Your task to perform on an android device: Empty the shopping cart on ebay.com. Add logitech g502 to the cart on ebay.com, then select checkout. Image 0: 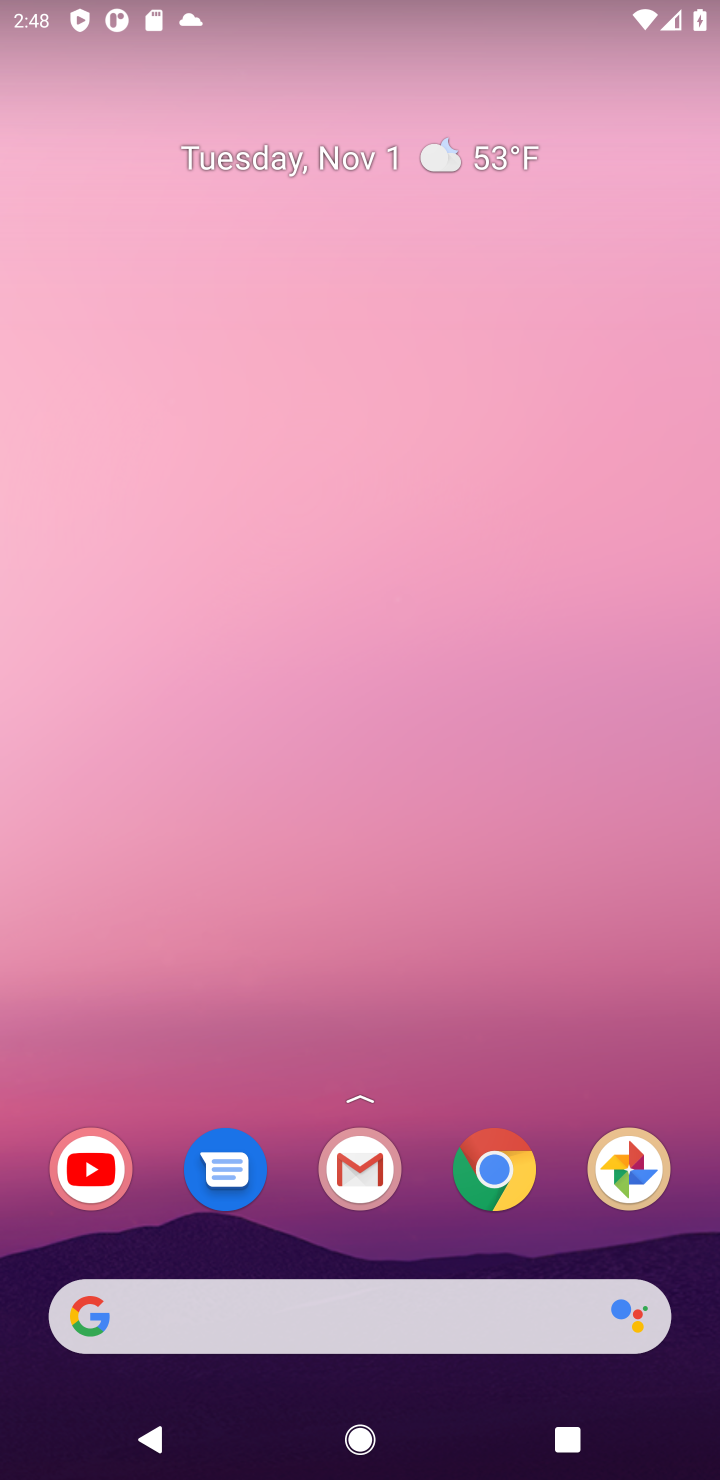
Step 0: click (506, 1173)
Your task to perform on an android device: Empty the shopping cart on ebay.com. Add logitech g502 to the cart on ebay.com, then select checkout. Image 1: 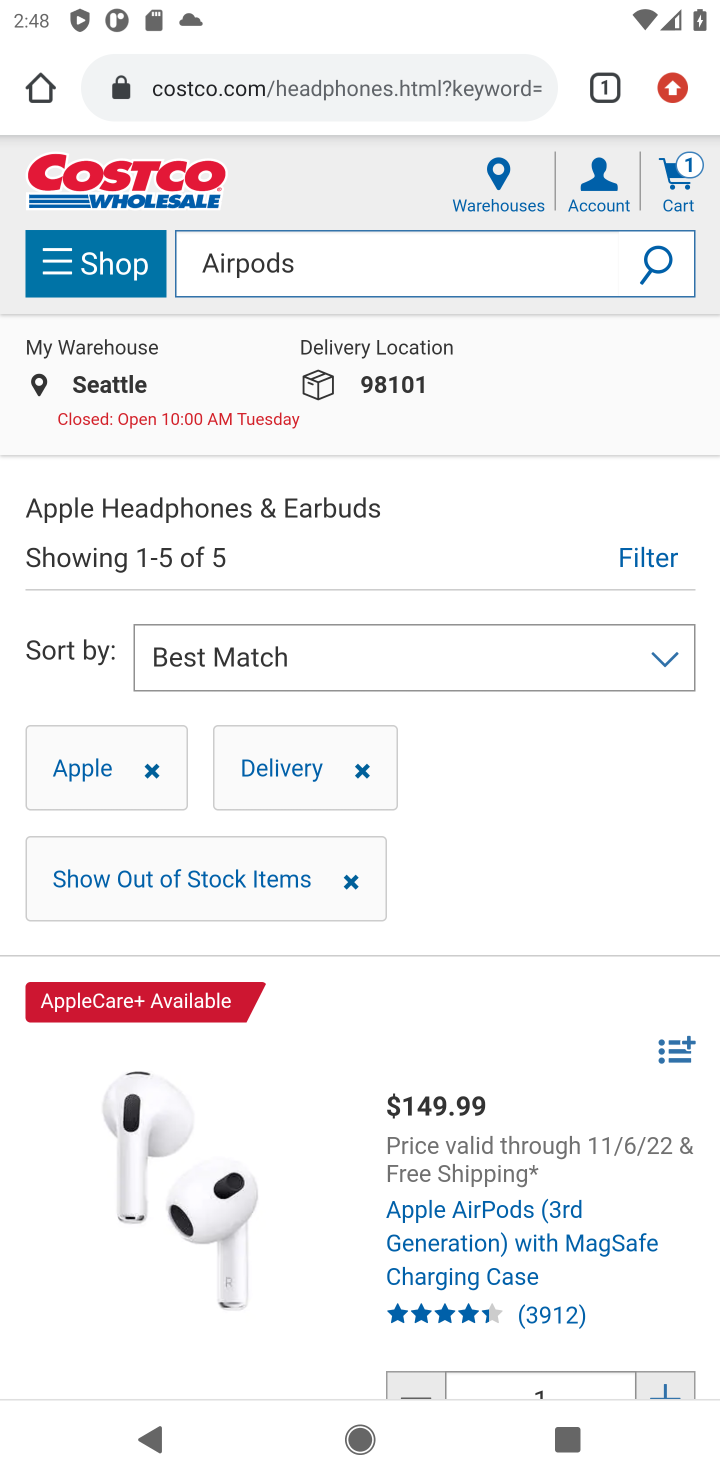
Step 1: click (227, 89)
Your task to perform on an android device: Empty the shopping cart on ebay.com. Add logitech g502 to the cart on ebay.com, then select checkout. Image 2: 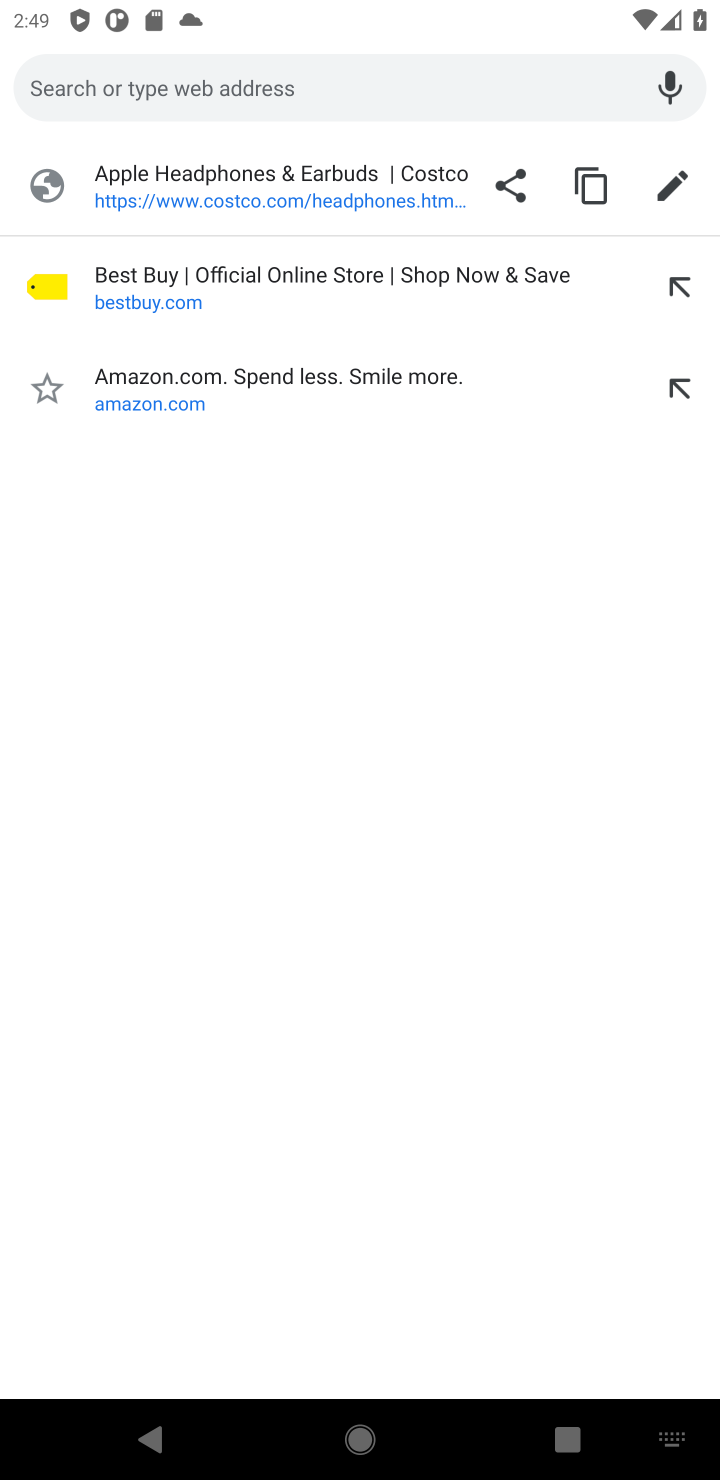
Step 2: type "ebay"
Your task to perform on an android device: Empty the shopping cart on ebay.com. Add logitech g502 to the cart on ebay.com, then select checkout. Image 3: 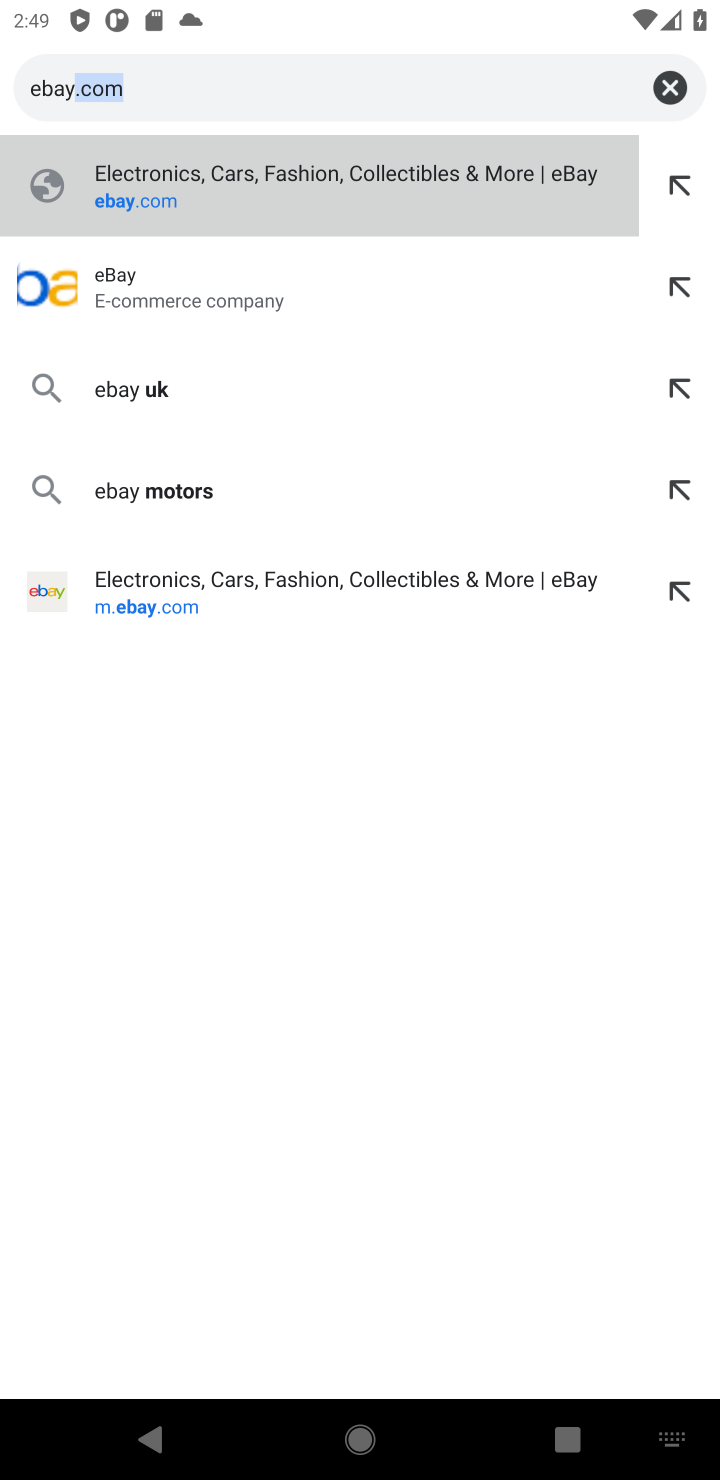
Step 3: click (118, 310)
Your task to perform on an android device: Empty the shopping cart on ebay.com. Add logitech g502 to the cart on ebay.com, then select checkout. Image 4: 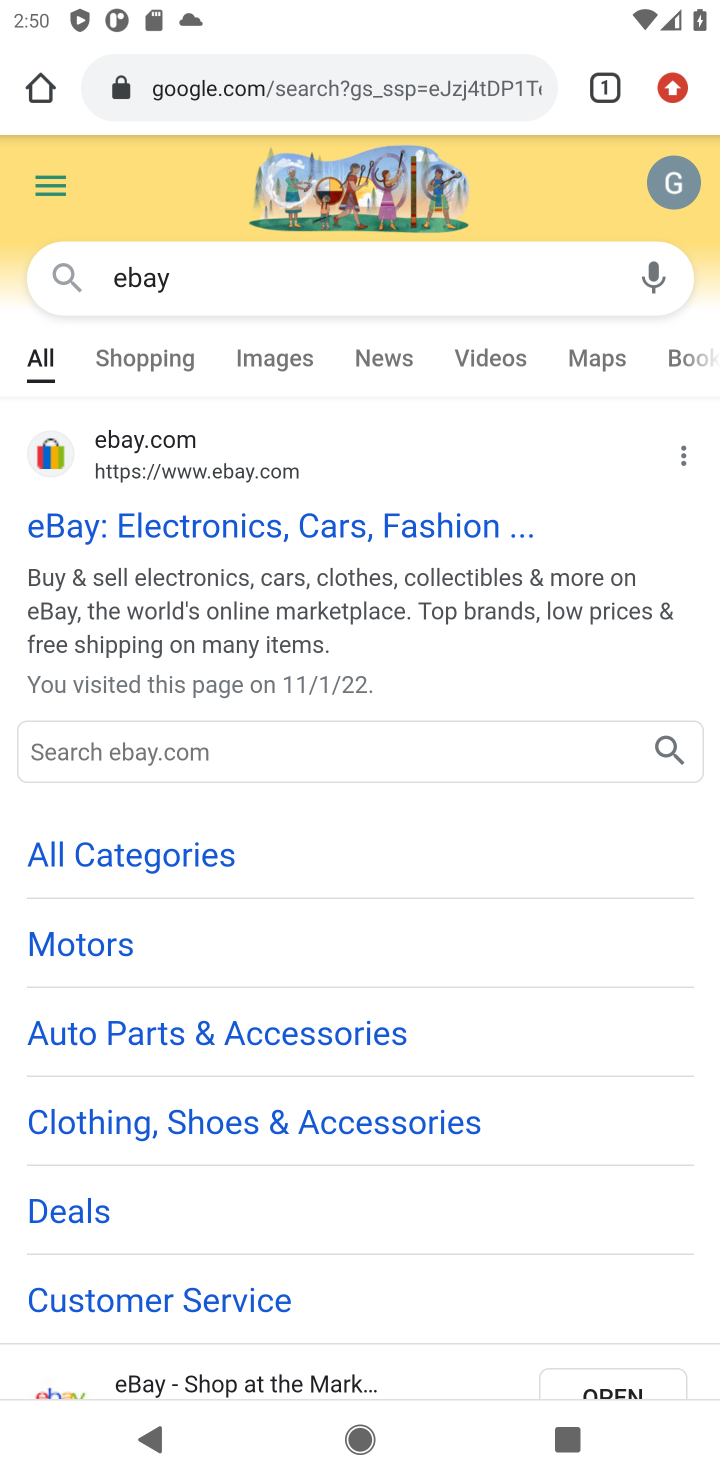
Step 4: click (118, 542)
Your task to perform on an android device: Empty the shopping cart on ebay.com. Add logitech g502 to the cart on ebay.com, then select checkout. Image 5: 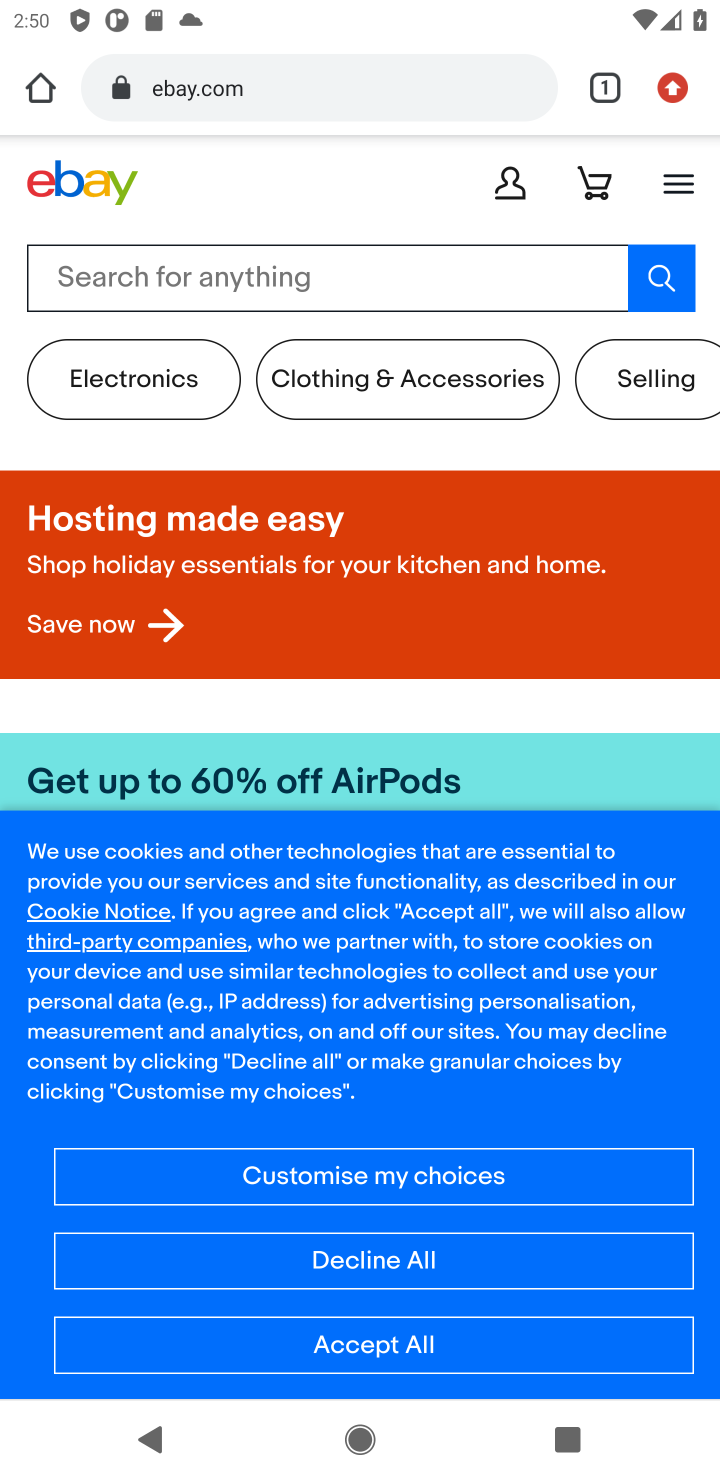
Step 5: click (140, 269)
Your task to perform on an android device: Empty the shopping cart on ebay.com. Add logitech g502 to the cart on ebay.com, then select checkout. Image 6: 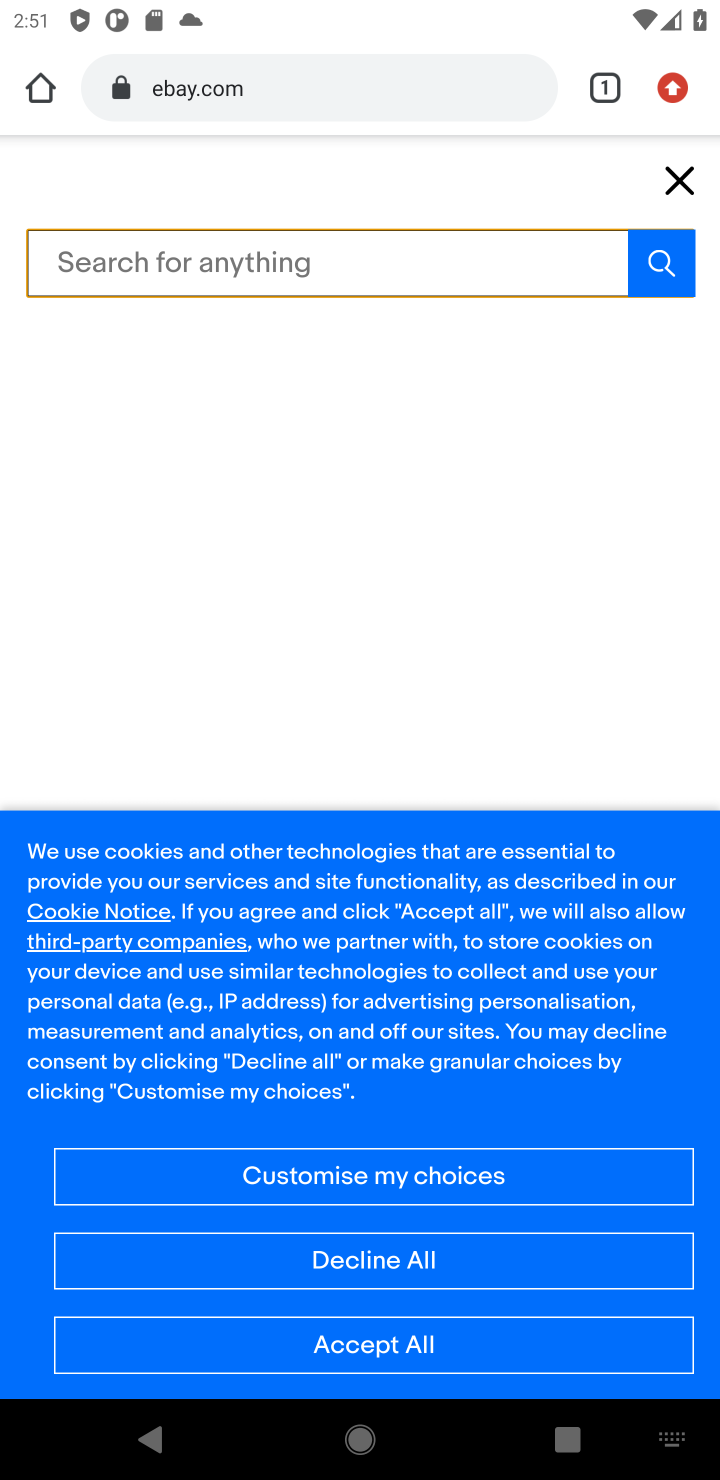
Step 6: type " logitech g502 "
Your task to perform on an android device: Empty the shopping cart on ebay.com. Add logitech g502 to the cart on ebay.com, then select checkout. Image 7: 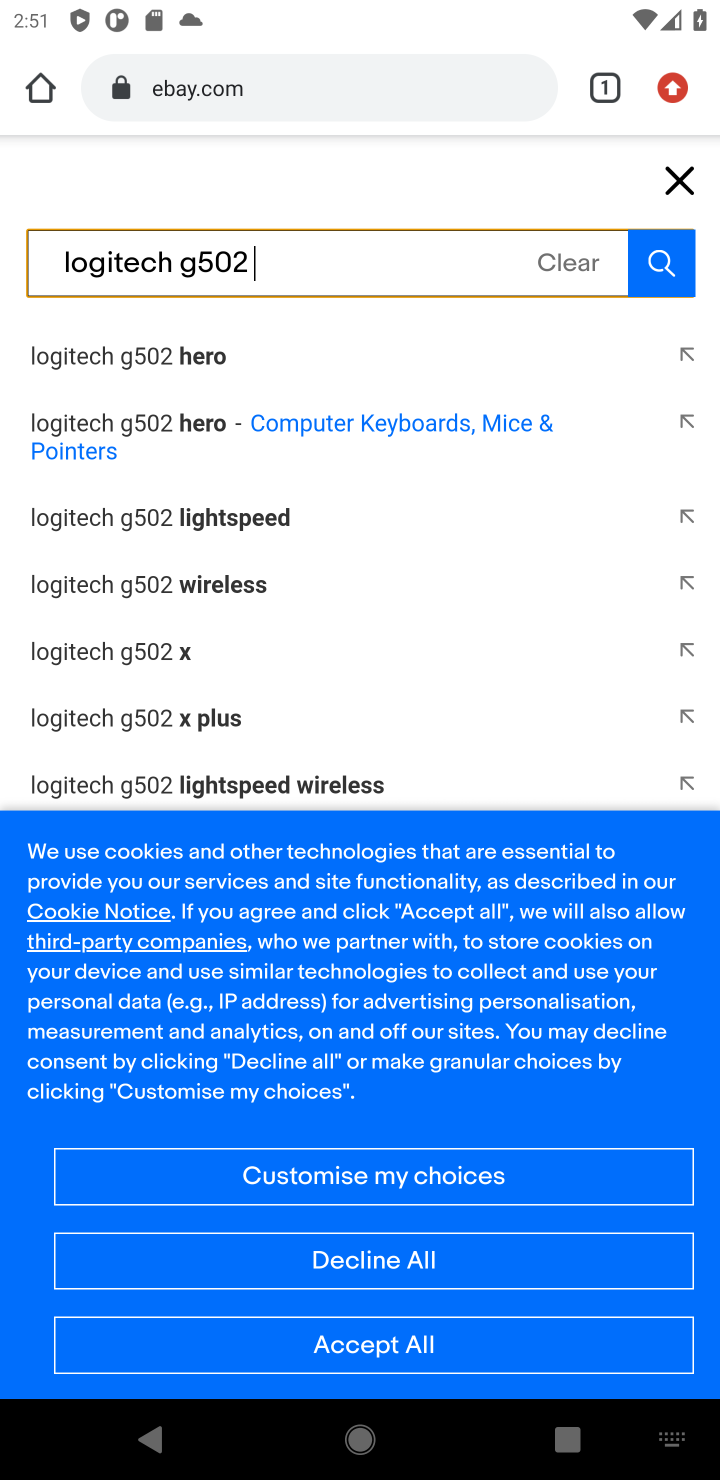
Step 7: click (647, 260)
Your task to perform on an android device: Empty the shopping cart on ebay.com. Add logitech g502 to the cart on ebay.com, then select checkout. Image 8: 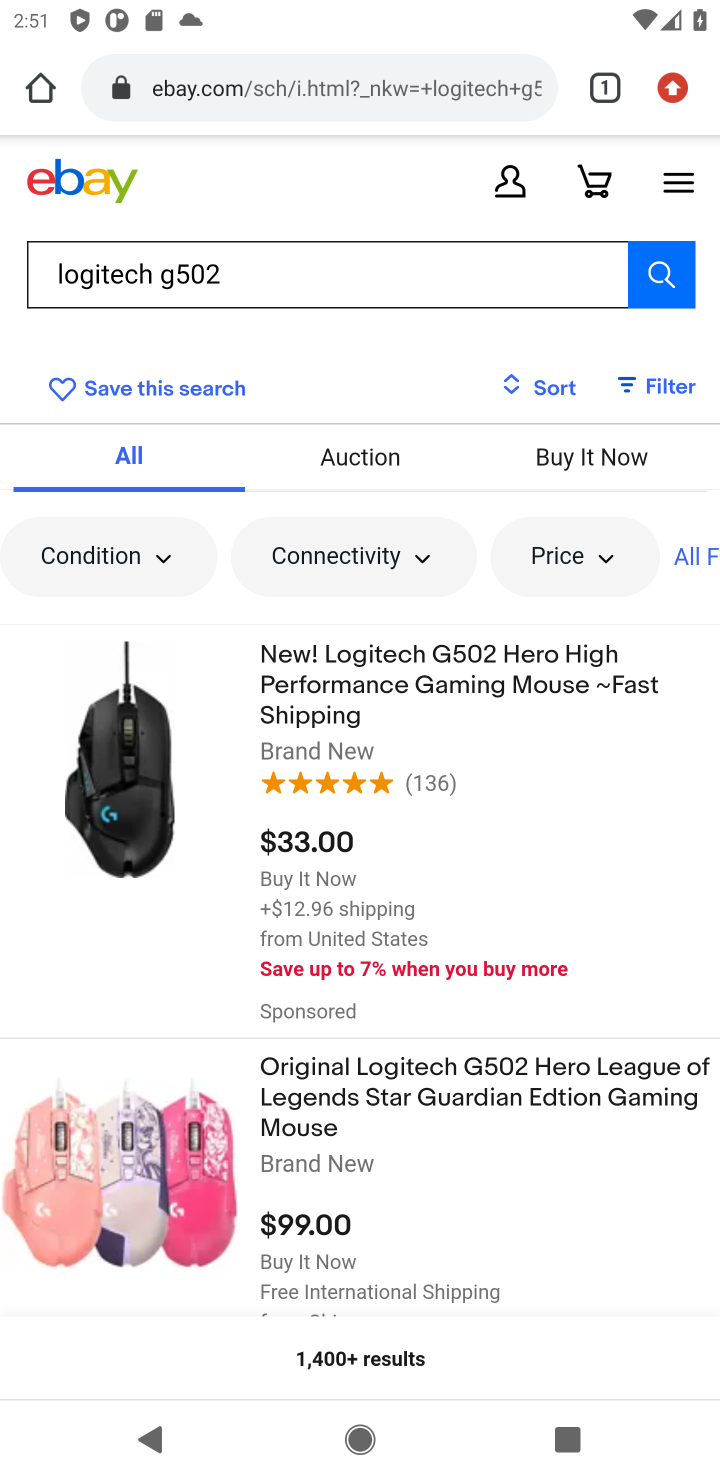
Step 8: click (480, 664)
Your task to perform on an android device: Empty the shopping cart on ebay.com. Add logitech g502 to the cart on ebay.com, then select checkout. Image 9: 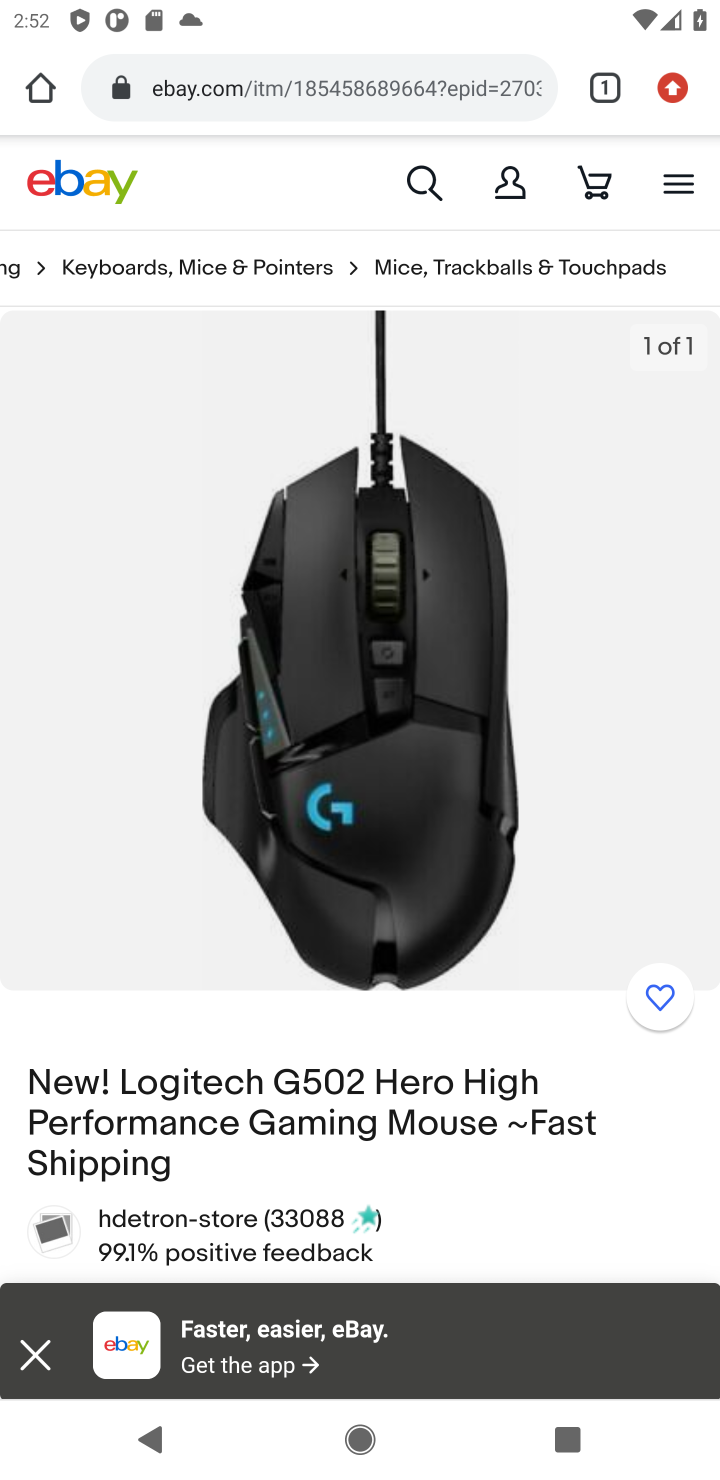
Step 9: drag from (265, 1150) to (267, 501)
Your task to perform on an android device: Empty the shopping cart on ebay.com. Add logitech g502 to the cart on ebay.com, then select checkout. Image 10: 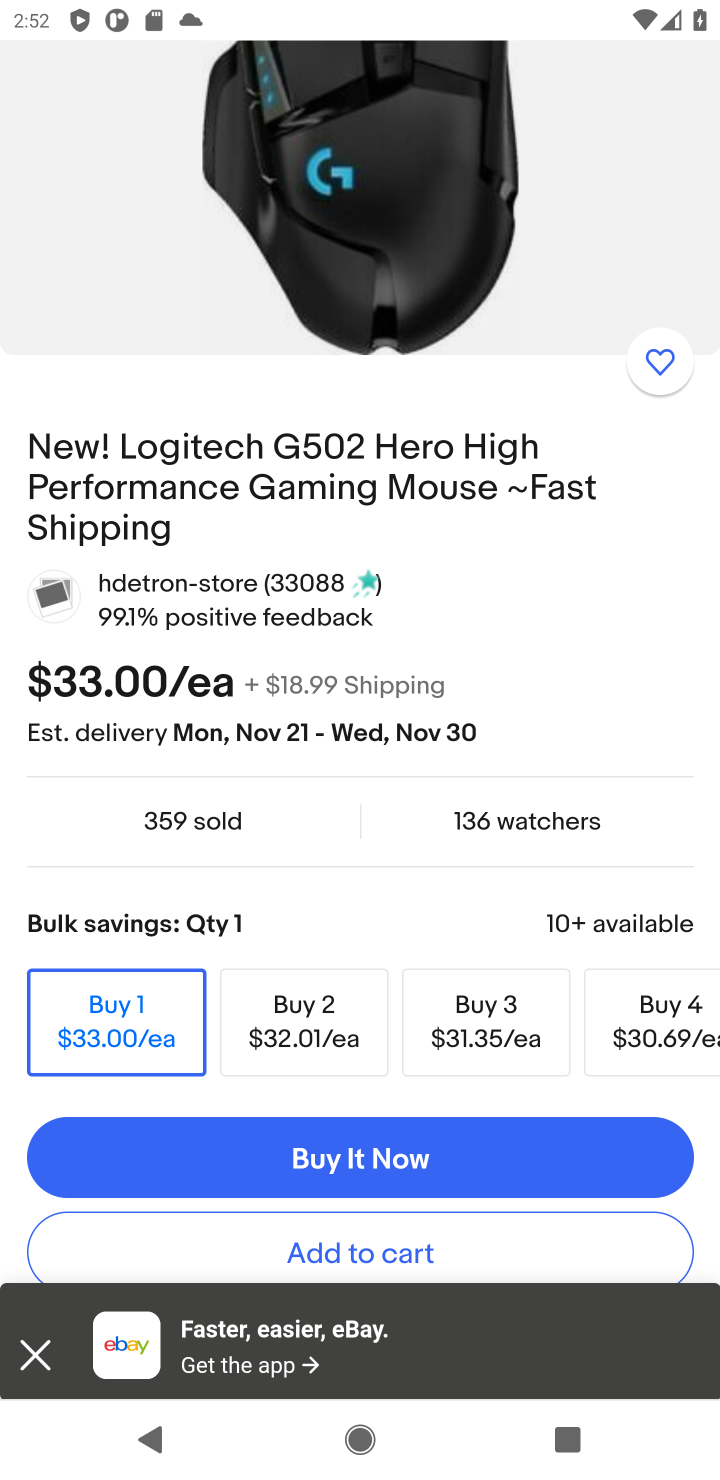
Step 10: click (403, 1261)
Your task to perform on an android device: Empty the shopping cart on ebay.com. Add logitech g502 to the cart on ebay.com, then select checkout. Image 11: 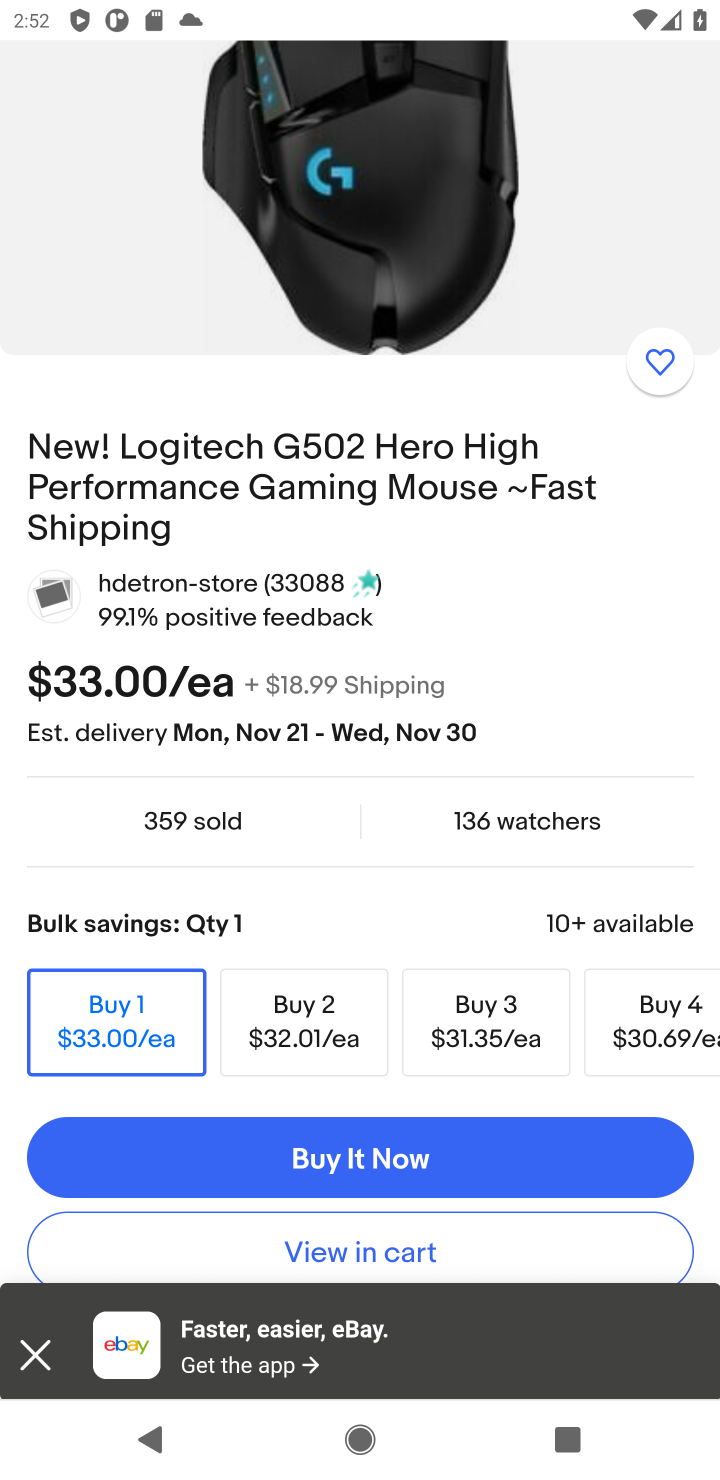
Step 11: click (403, 1261)
Your task to perform on an android device: Empty the shopping cart on ebay.com. Add logitech g502 to the cart on ebay.com, then select checkout. Image 12: 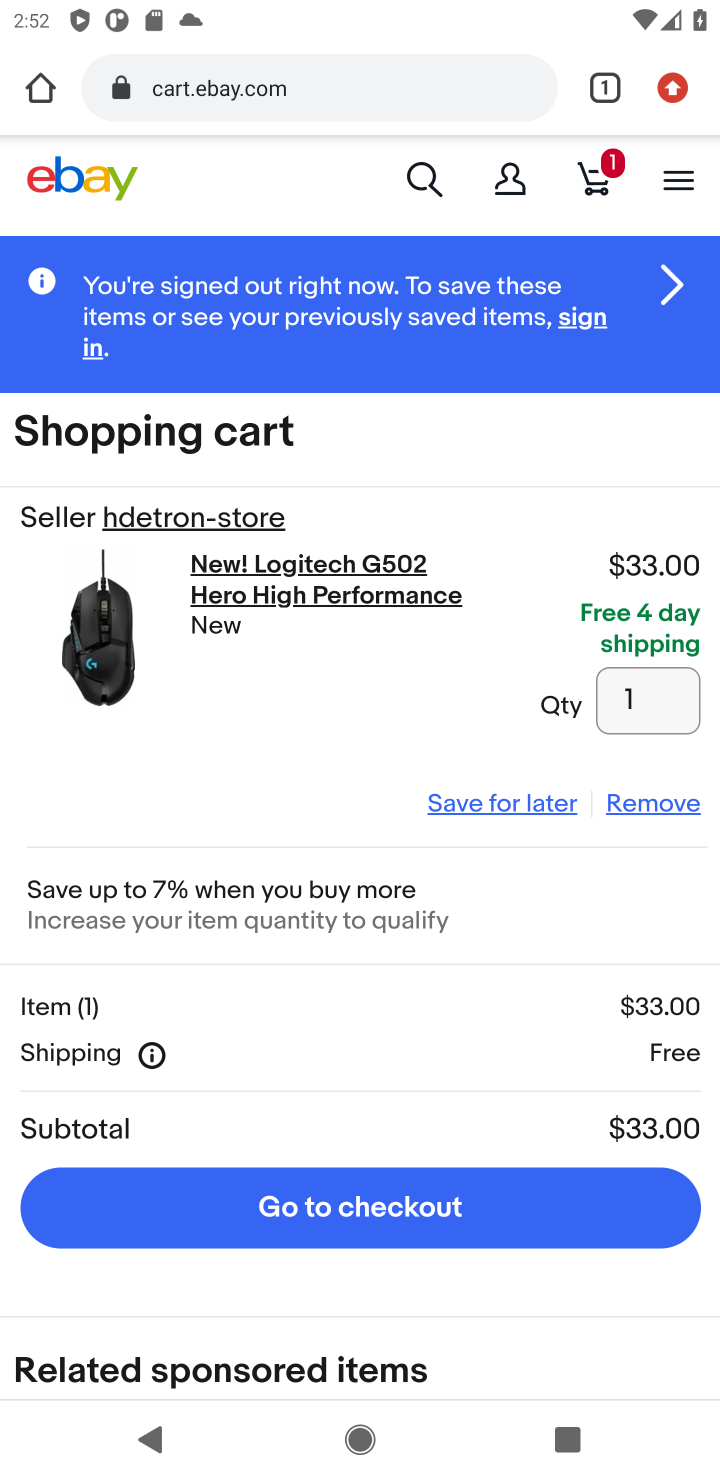
Step 12: click (555, 1236)
Your task to perform on an android device: Empty the shopping cart on ebay.com. Add logitech g502 to the cart on ebay.com, then select checkout. Image 13: 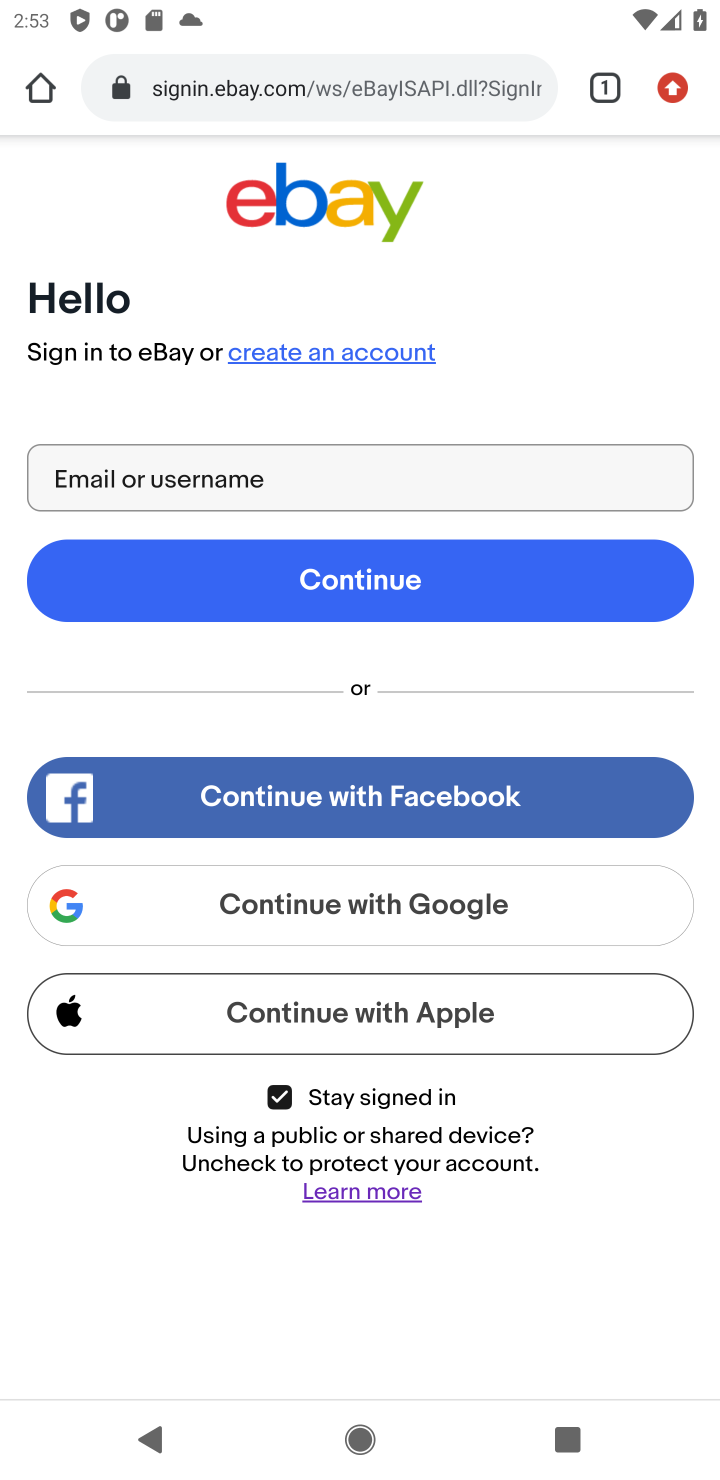
Step 13: task complete